Your task to perform on an android device: open chrome and create a bookmark for the current page Image 0: 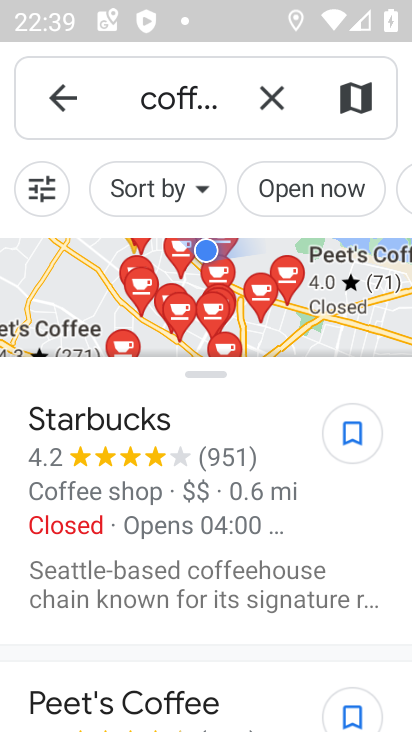
Step 0: press home button
Your task to perform on an android device: open chrome and create a bookmark for the current page Image 1: 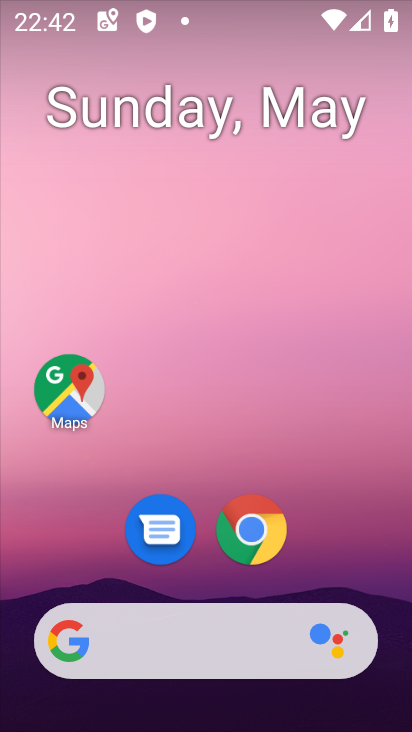
Step 1: click (257, 537)
Your task to perform on an android device: open chrome and create a bookmark for the current page Image 2: 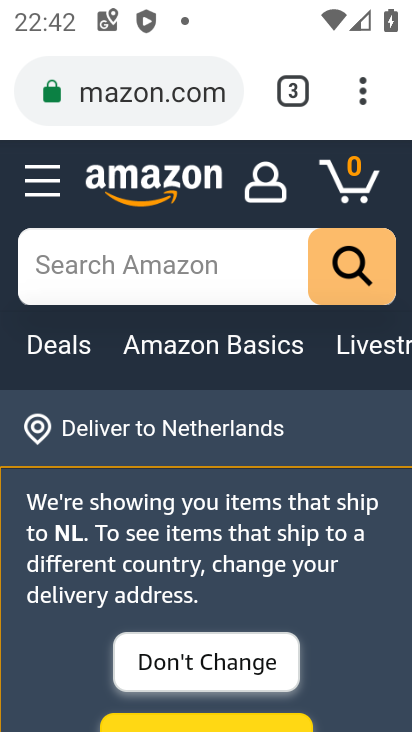
Step 2: task complete